Your task to perform on an android device: open app "Upside-Cash back on gas & food" (install if not already installed) and go to login screen Image 0: 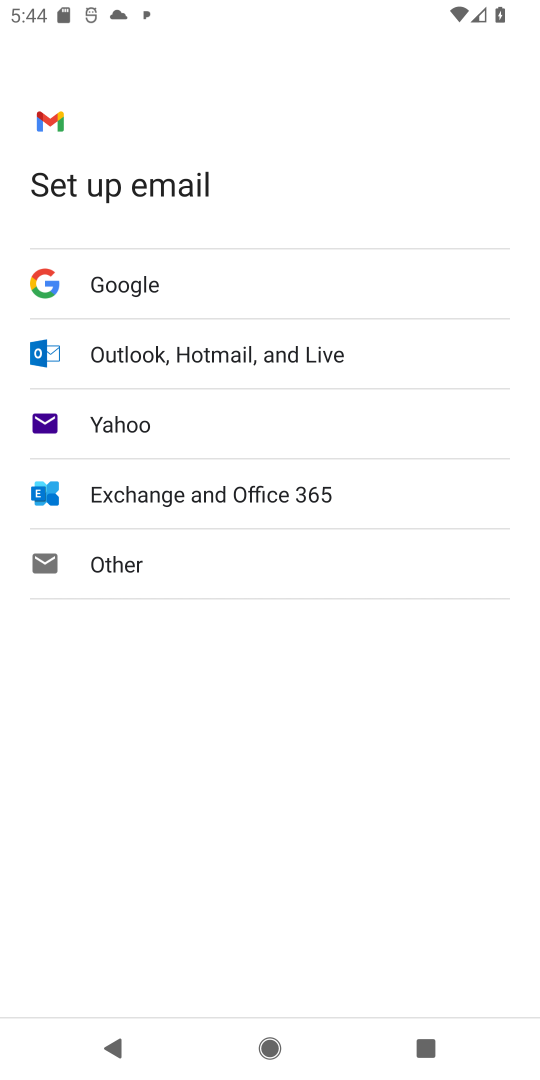
Step 0: press home button
Your task to perform on an android device: open app "Upside-Cash back on gas & food" (install if not already installed) and go to login screen Image 1: 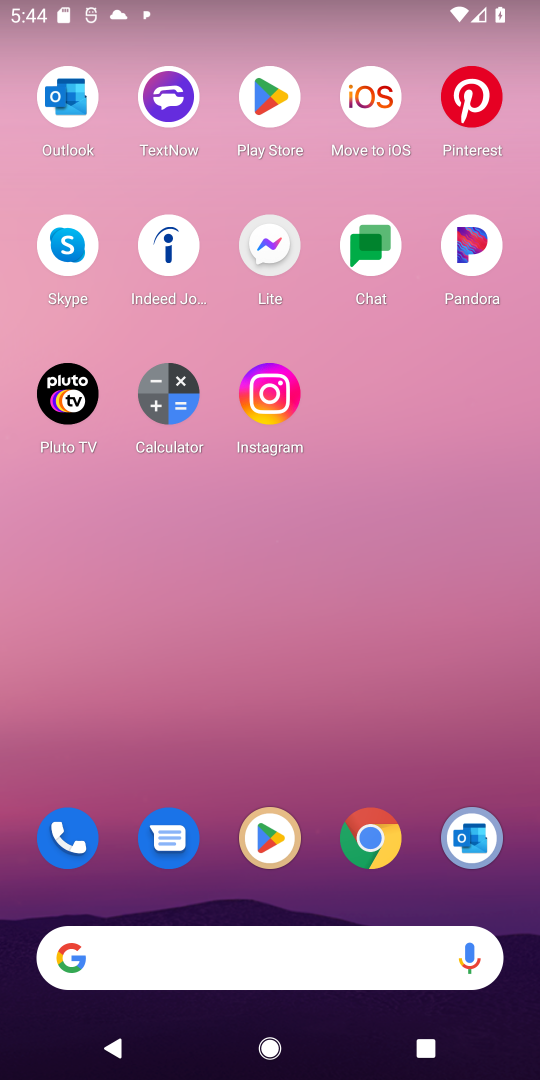
Step 1: click (273, 843)
Your task to perform on an android device: open app "Upside-Cash back on gas & food" (install if not already installed) and go to login screen Image 2: 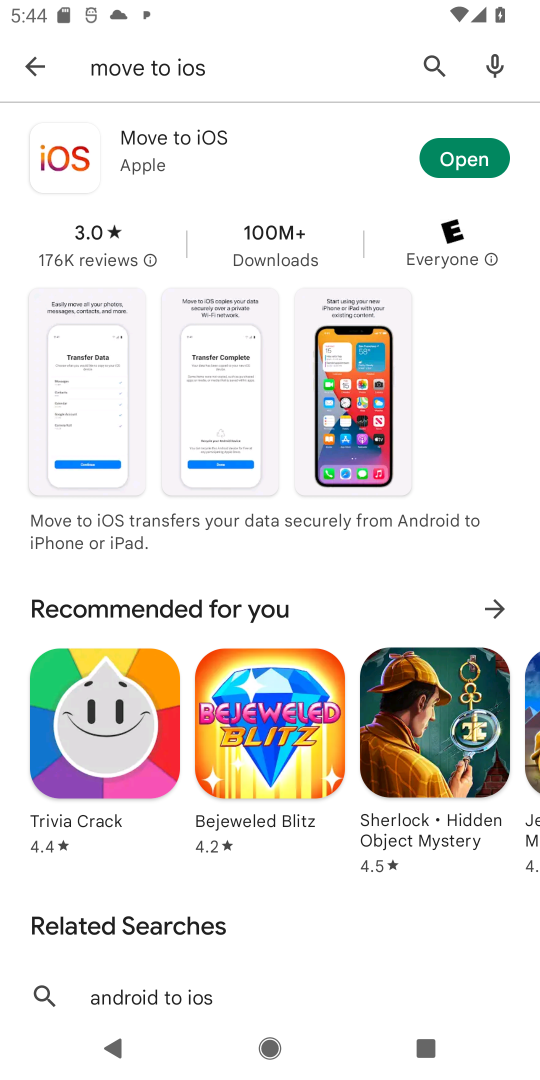
Step 2: click (429, 66)
Your task to perform on an android device: open app "Upside-Cash back on gas & food" (install if not already installed) and go to login screen Image 3: 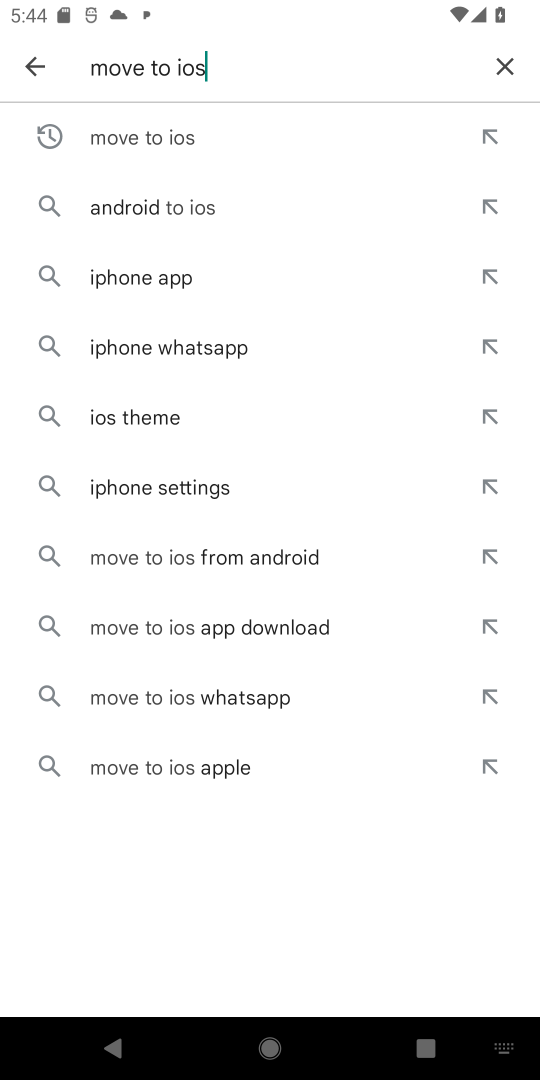
Step 3: click (504, 65)
Your task to perform on an android device: open app "Upside-Cash back on gas & food" (install if not already installed) and go to login screen Image 4: 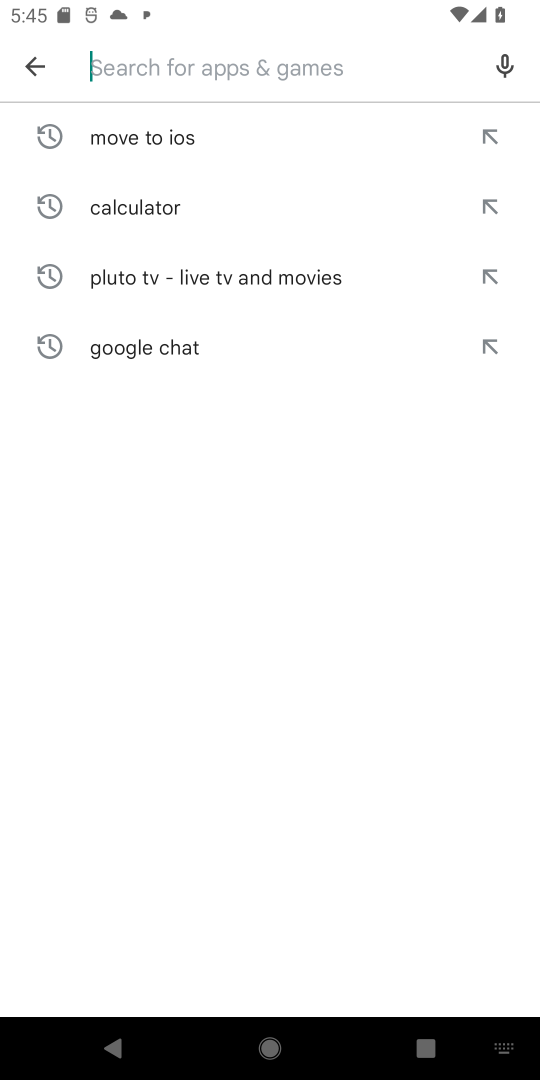
Step 4: type "Upside-Cash back on gas & food"
Your task to perform on an android device: open app "Upside-Cash back on gas & food" (install if not already installed) and go to login screen Image 5: 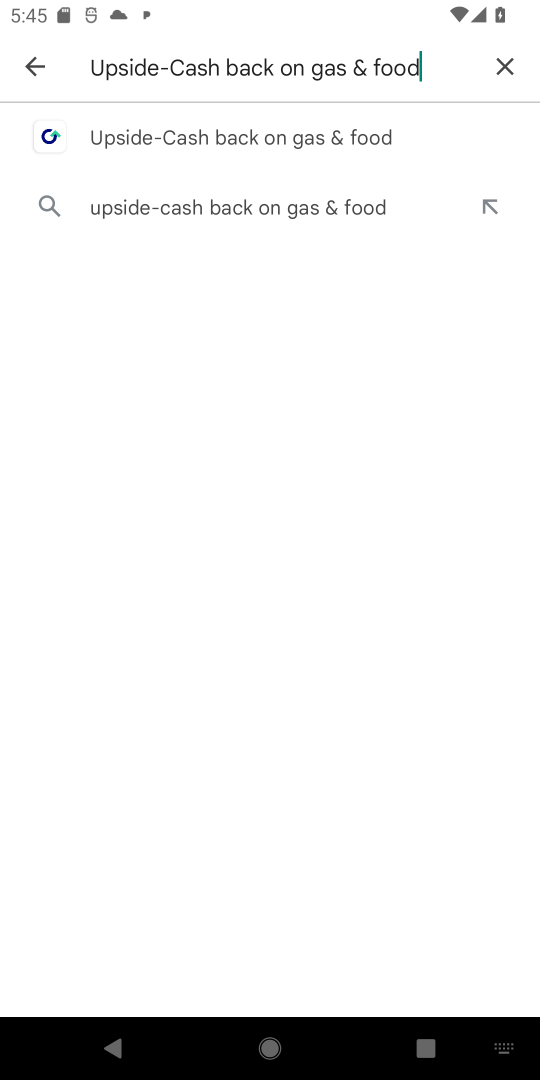
Step 5: click (360, 138)
Your task to perform on an android device: open app "Upside-Cash back on gas & food" (install if not already installed) and go to login screen Image 6: 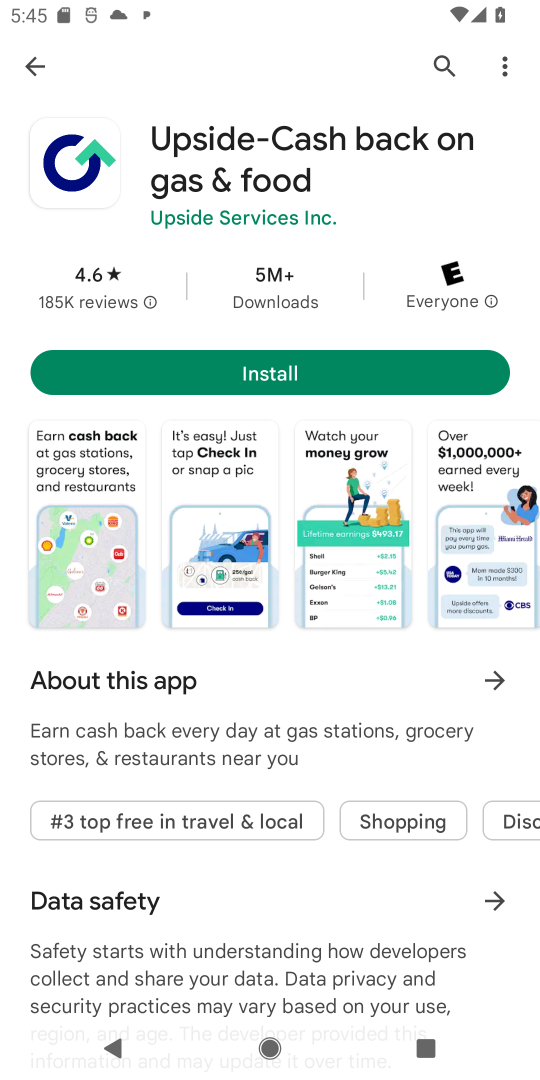
Step 6: click (284, 374)
Your task to perform on an android device: open app "Upside-Cash back on gas & food" (install if not already installed) and go to login screen Image 7: 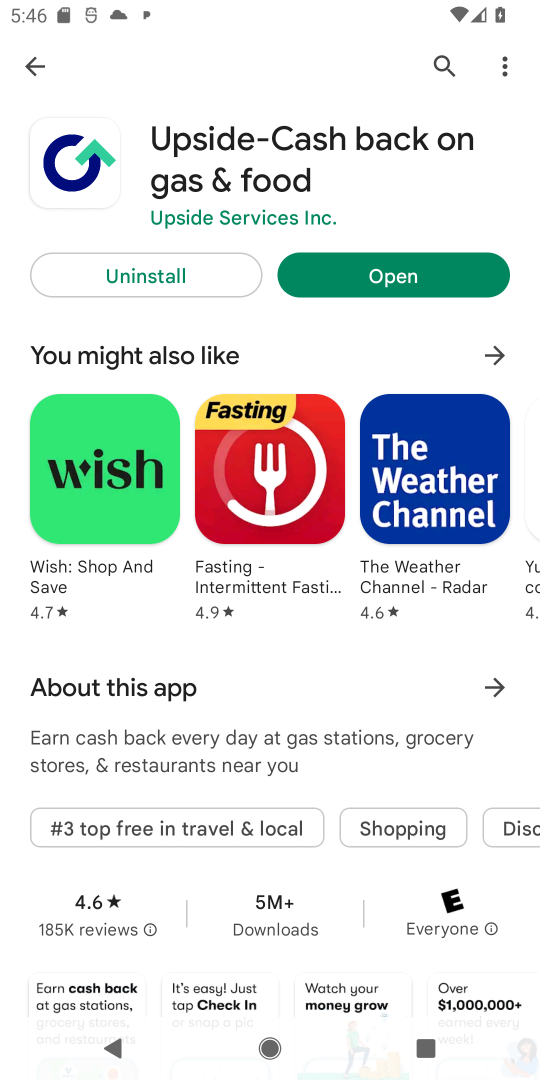
Step 7: click (391, 271)
Your task to perform on an android device: open app "Upside-Cash back on gas & food" (install if not already installed) and go to login screen Image 8: 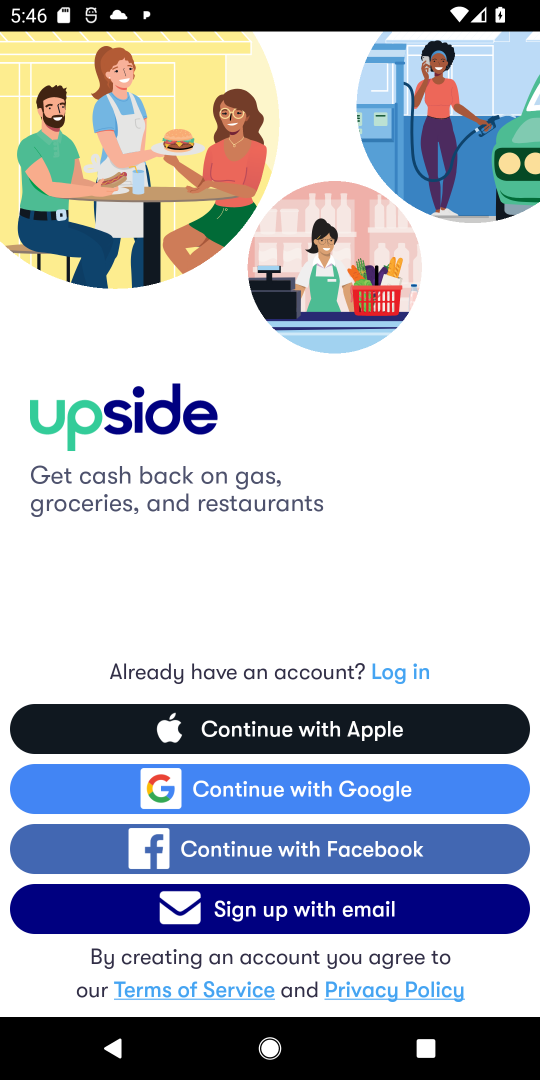
Step 8: task complete